Your task to perform on an android device: find which apps use the phone's location Image 0: 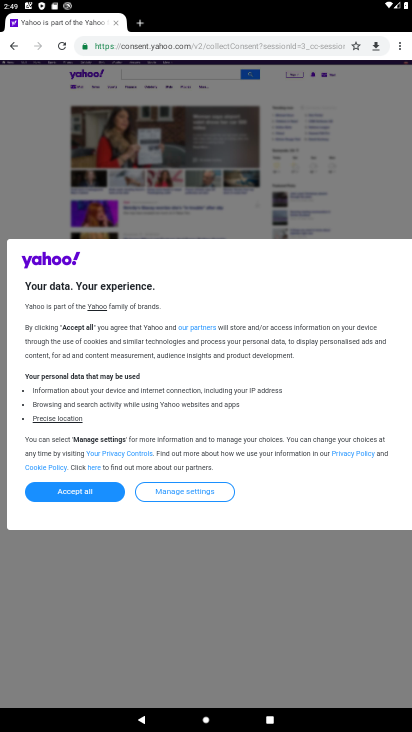
Step 0: press home button
Your task to perform on an android device: find which apps use the phone's location Image 1: 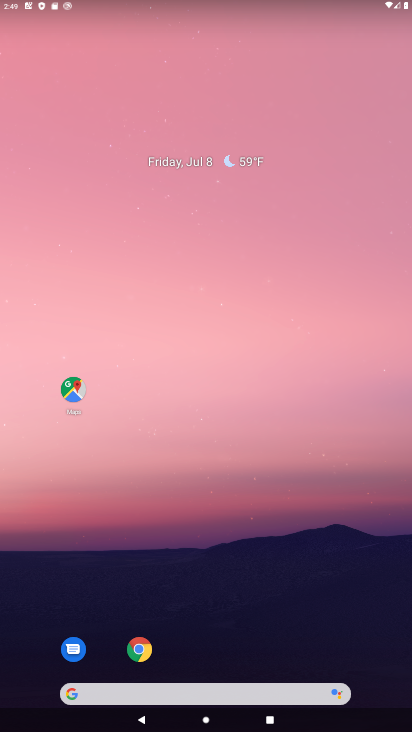
Step 1: drag from (320, 600) to (338, 170)
Your task to perform on an android device: find which apps use the phone's location Image 2: 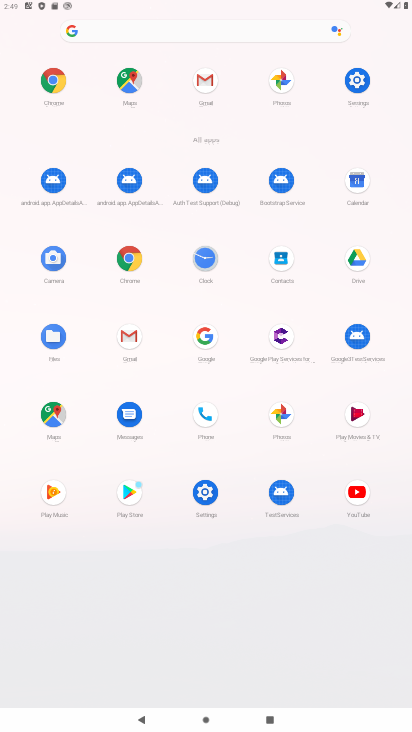
Step 2: click (358, 78)
Your task to perform on an android device: find which apps use the phone's location Image 3: 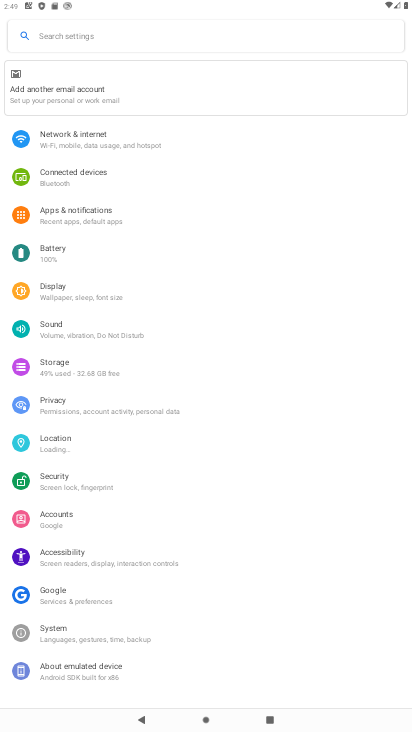
Step 3: click (71, 440)
Your task to perform on an android device: find which apps use the phone's location Image 4: 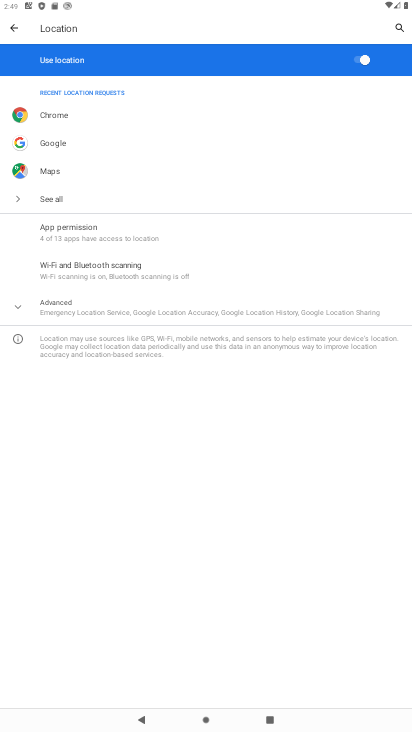
Step 4: click (89, 229)
Your task to perform on an android device: find which apps use the phone's location Image 5: 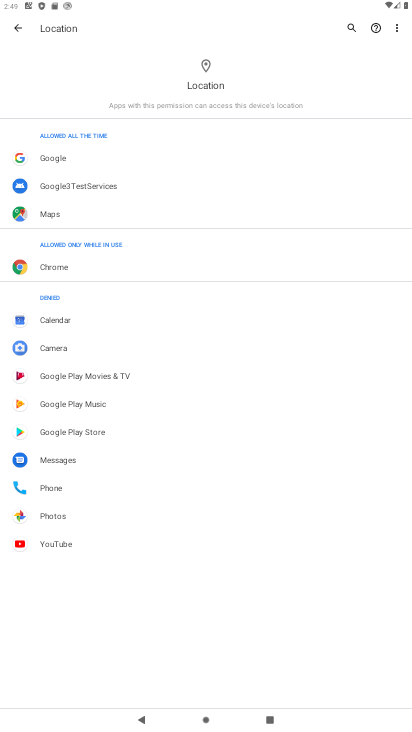
Step 5: task complete